Your task to perform on an android device: turn notification dots off Image 0: 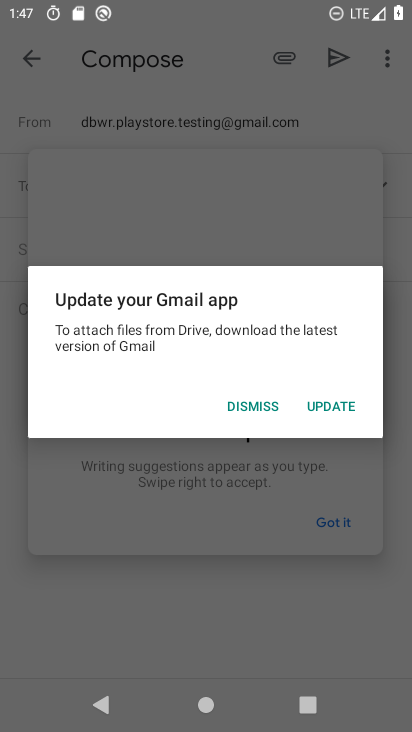
Step 0: press home button
Your task to perform on an android device: turn notification dots off Image 1: 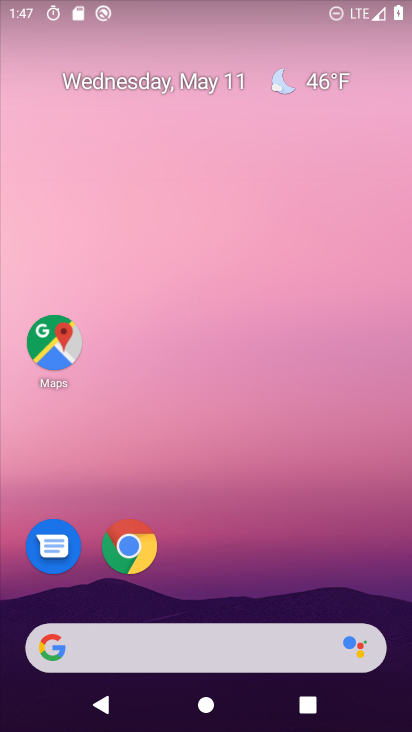
Step 1: drag from (256, 677) to (171, 181)
Your task to perform on an android device: turn notification dots off Image 2: 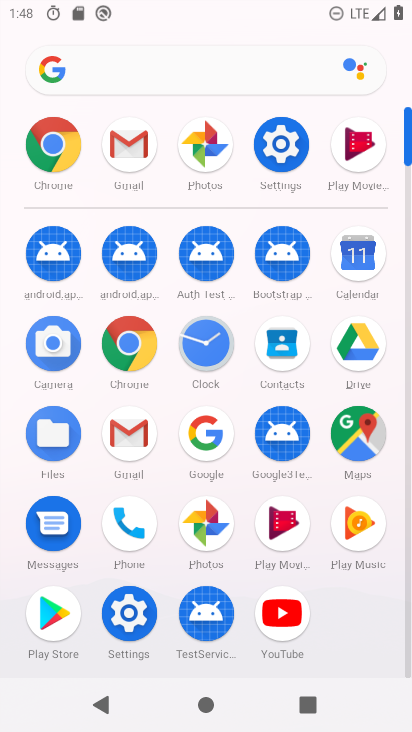
Step 2: click (281, 158)
Your task to perform on an android device: turn notification dots off Image 3: 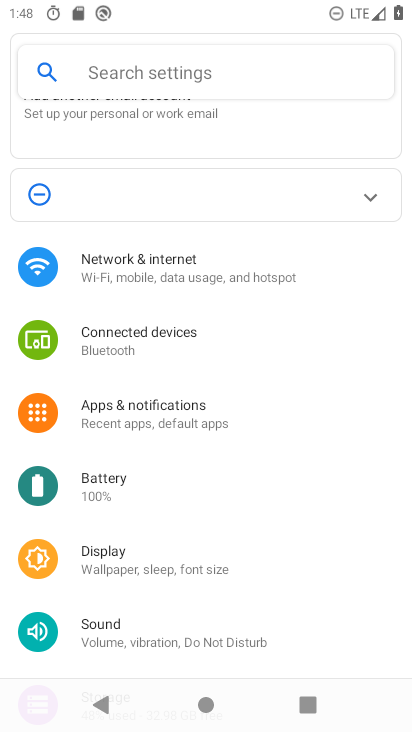
Step 3: click (202, 69)
Your task to perform on an android device: turn notification dots off Image 4: 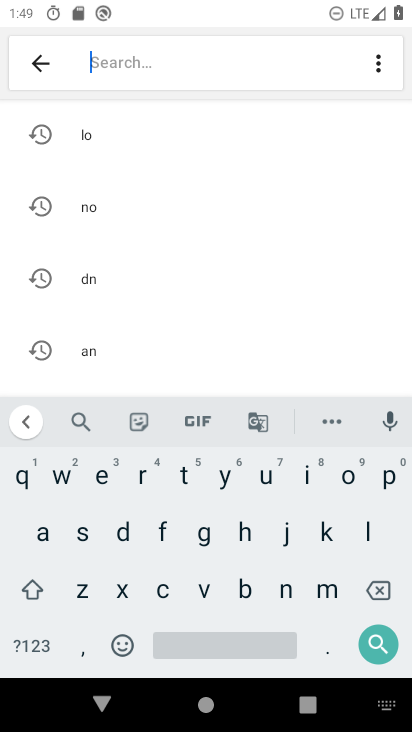
Step 4: click (124, 530)
Your task to perform on an android device: turn notification dots off Image 5: 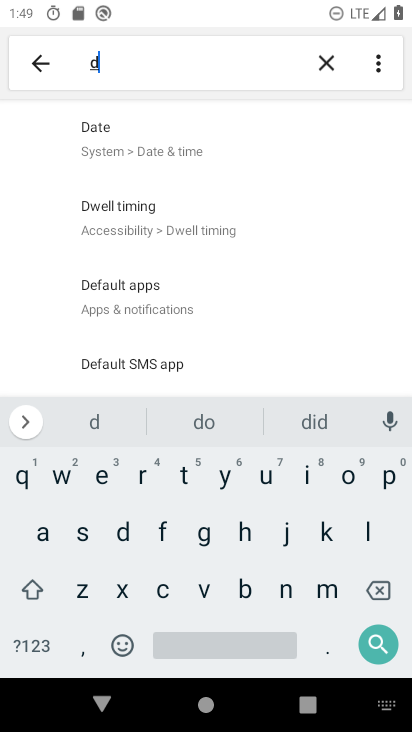
Step 5: click (346, 484)
Your task to perform on an android device: turn notification dots off Image 6: 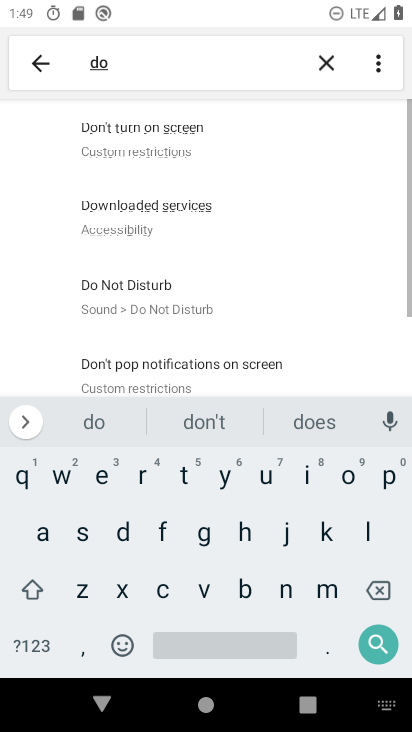
Step 6: click (189, 480)
Your task to perform on an android device: turn notification dots off Image 7: 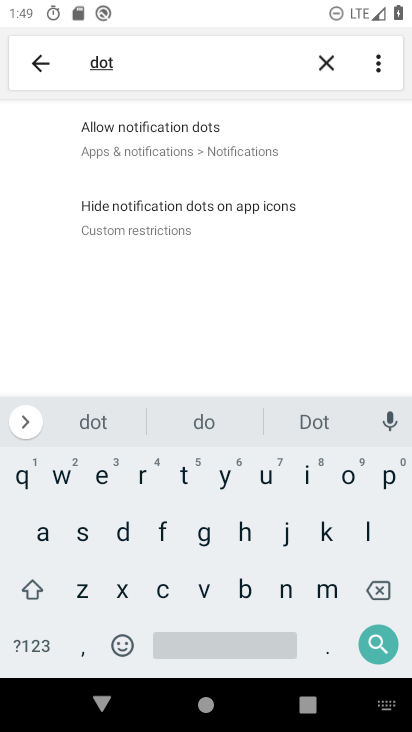
Step 7: click (205, 153)
Your task to perform on an android device: turn notification dots off Image 8: 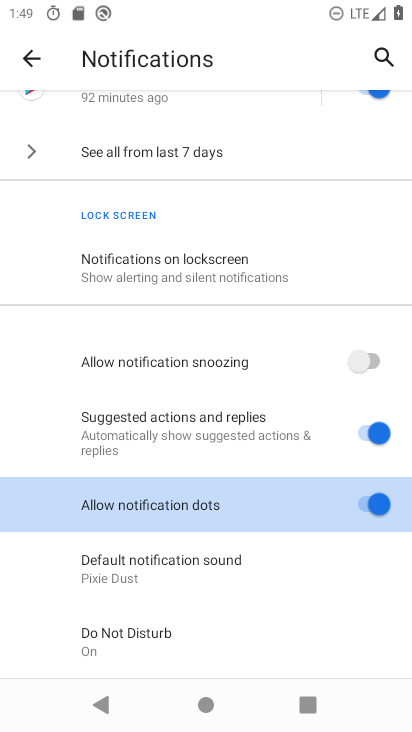
Step 8: click (211, 513)
Your task to perform on an android device: turn notification dots off Image 9: 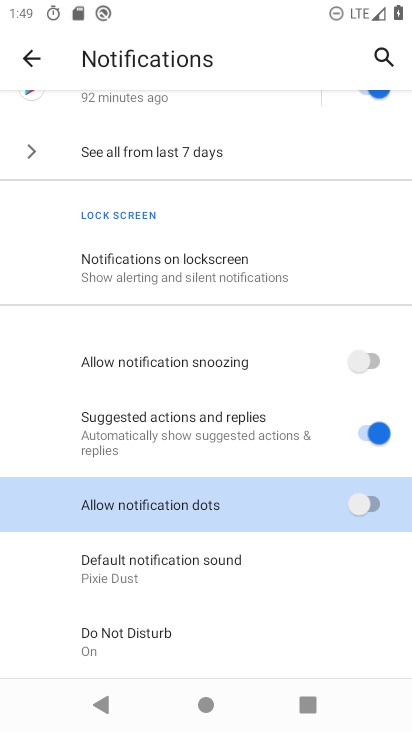
Step 9: task complete